Your task to perform on an android device: Open Google Image 0: 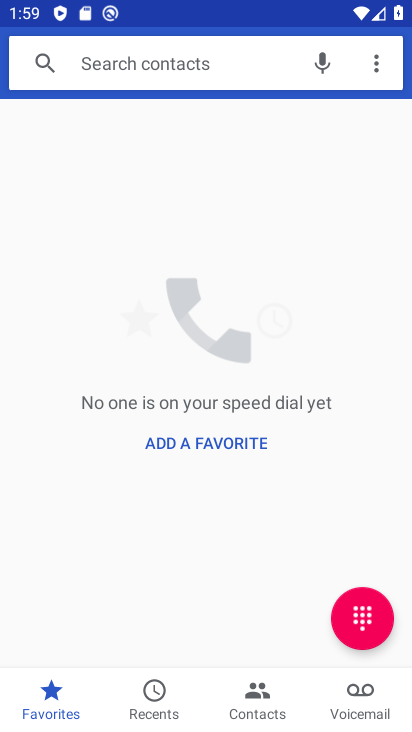
Step 0: press home button
Your task to perform on an android device: Open Google Image 1: 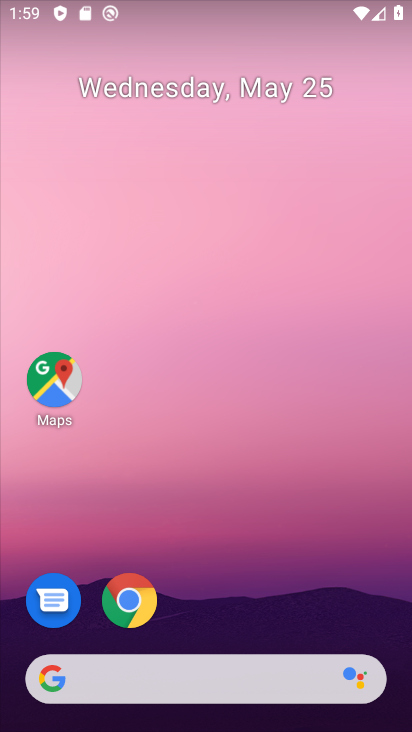
Step 1: drag from (226, 484) to (229, 115)
Your task to perform on an android device: Open Google Image 2: 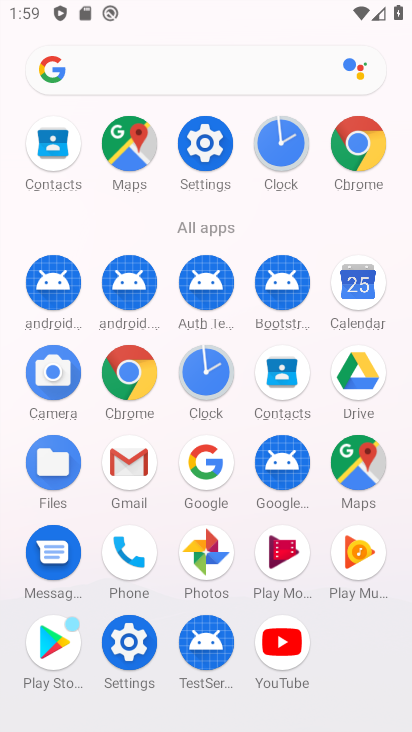
Step 2: click (210, 457)
Your task to perform on an android device: Open Google Image 3: 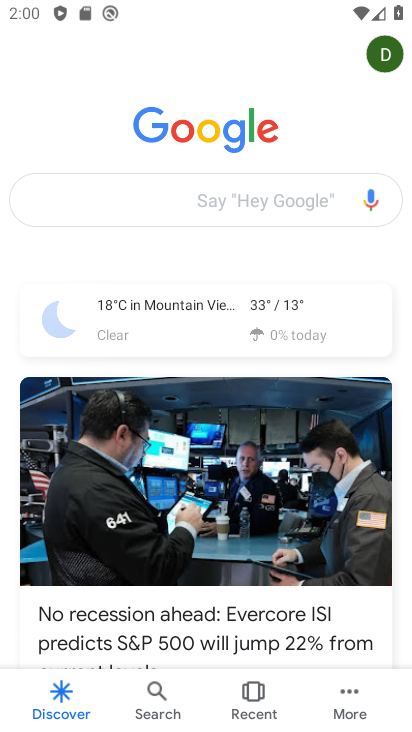
Step 3: task complete